Your task to perform on an android device: open device folders in google photos Image 0: 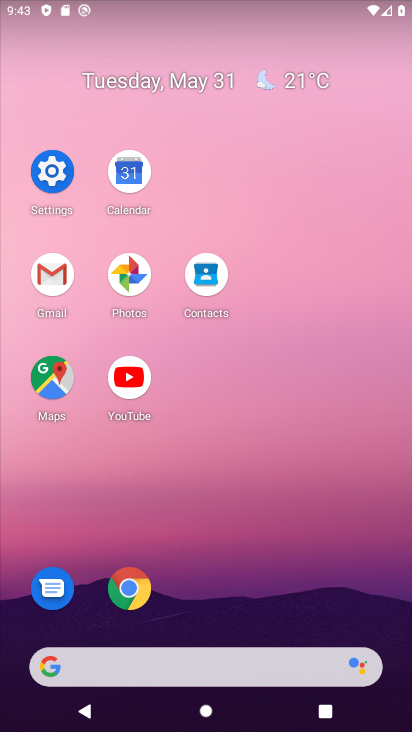
Step 0: click (139, 288)
Your task to perform on an android device: open device folders in google photos Image 1: 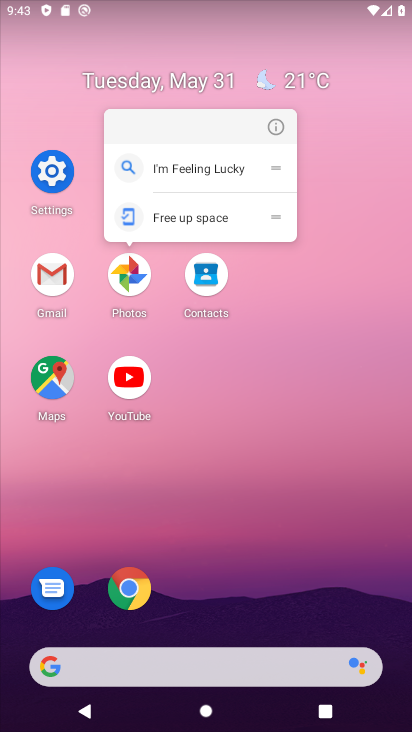
Step 1: click (120, 270)
Your task to perform on an android device: open device folders in google photos Image 2: 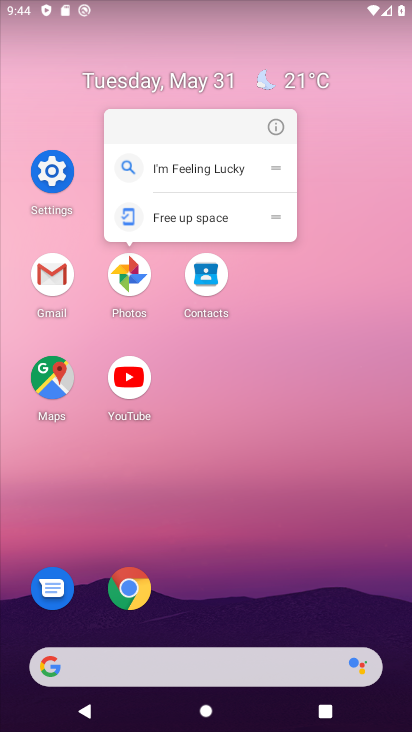
Step 2: click (134, 292)
Your task to perform on an android device: open device folders in google photos Image 3: 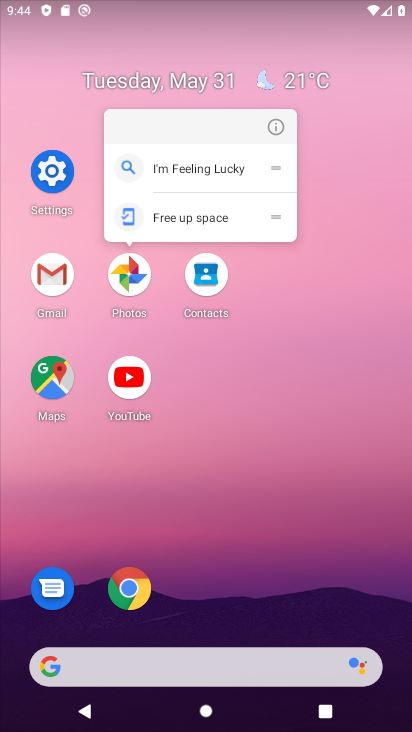
Step 3: click (134, 292)
Your task to perform on an android device: open device folders in google photos Image 4: 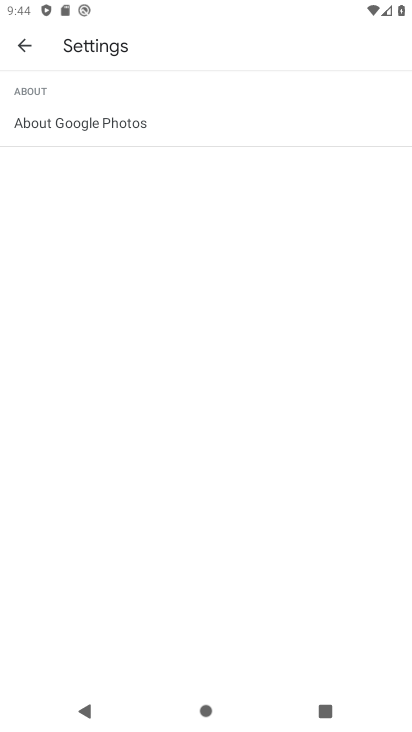
Step 4: click (31, 34)
Your task to perform on an android device: open device folders in google photos Image 5: 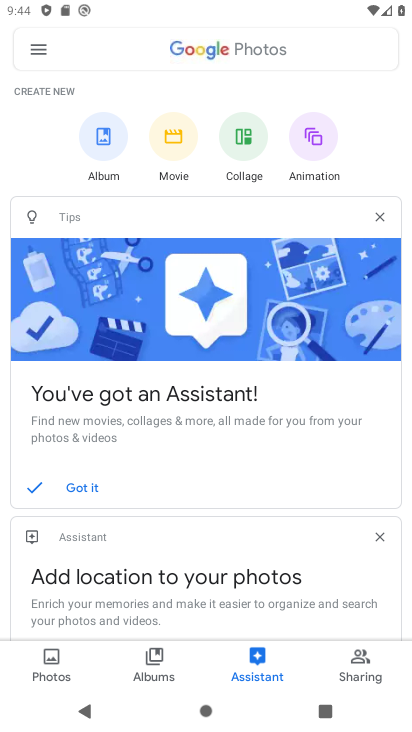
Step 5: click (30, 34)
Your task to perform on an android device: open device folders in google photos Image 6: 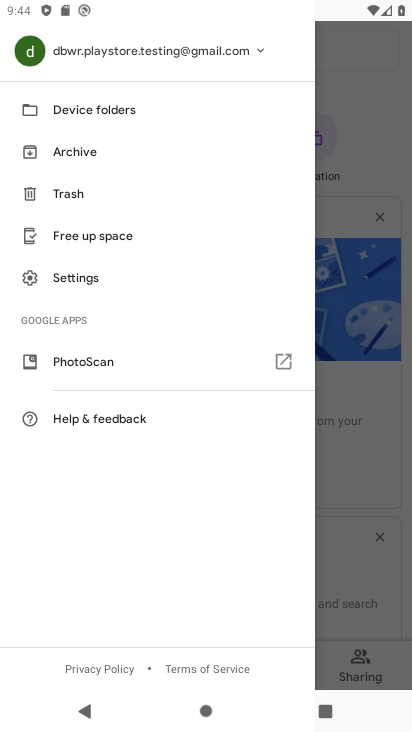
Step 6: click (73, 119)
Your task to perform on an android device: open device folders in google photos Image 7: 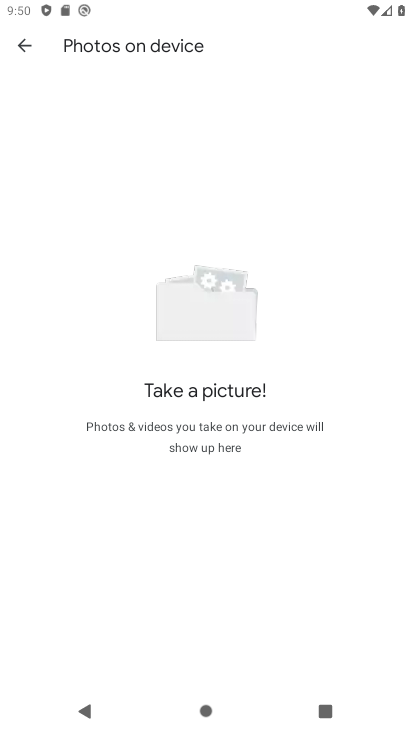
Step 7: task complete